Your task to perform on an android device: turn on showing notifications on the lock screen Image 0: 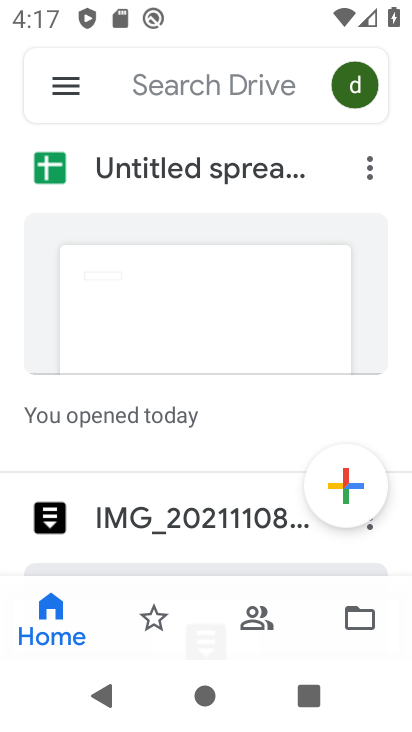
Step 0: press home button
Your task to perform on an android device: turn on showing notifications on the lock screen Image 1: 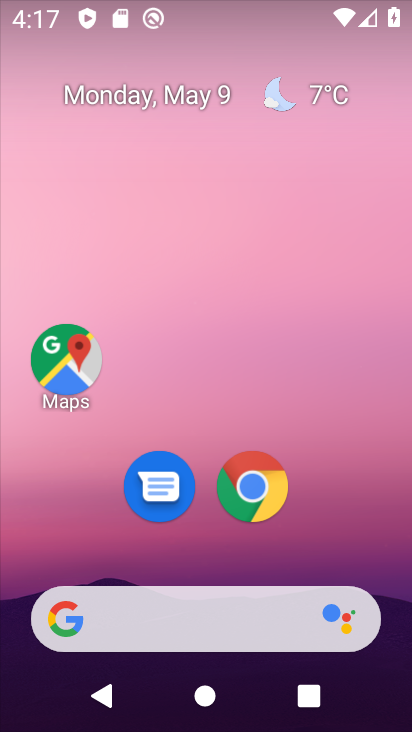
Step 1: drag from (157, 404) to (255, 12)
Your task to perform on an android device: turn on showing notifications on the lock screen Image 2: 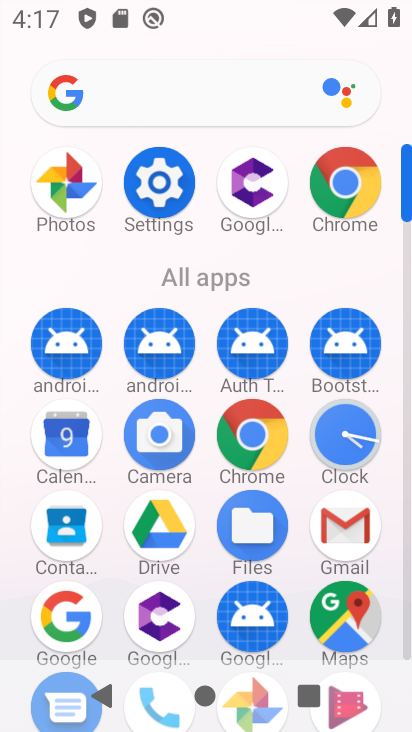
Step 2: click (161, 191)
Your task to perform on an android device: turn on showing notifications on the lock screen Image 3: 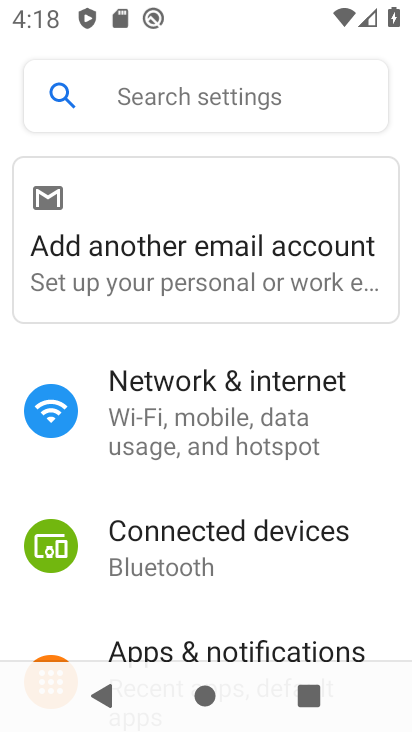
Step 3: drag from (218, 596) to (284, 110)
Your task to perform on an android device: turn on showing notifications on the lock screen Image 4: 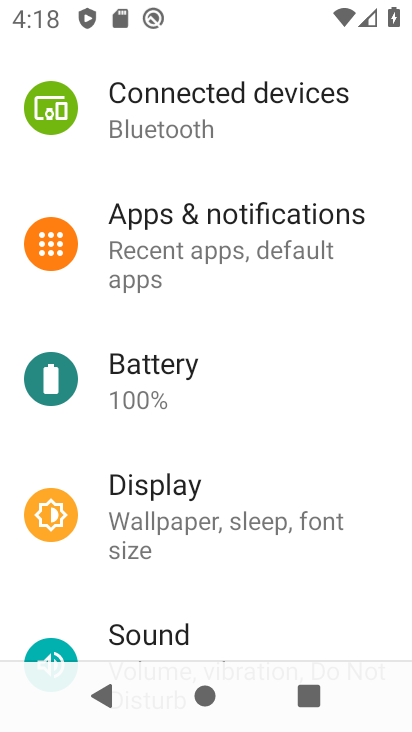
Step 4: click (240, 223)
Your task to perform on an android device: turn on showing notifications on the lock screen Image 5: 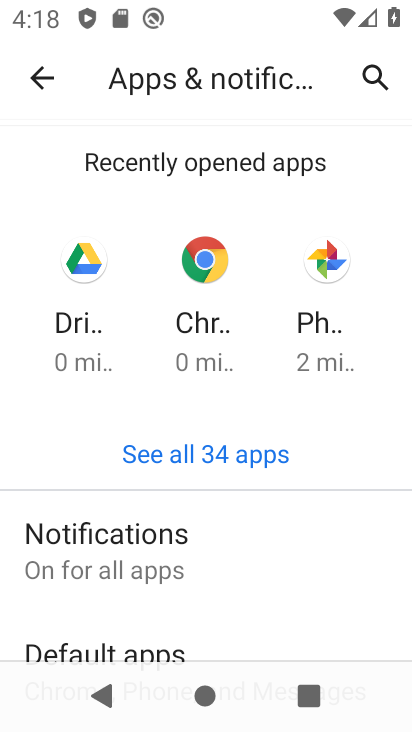
Step 5: click (239, 560)
Your task to perform on an android device: turn on showing notifications on the lock screen Image 6: 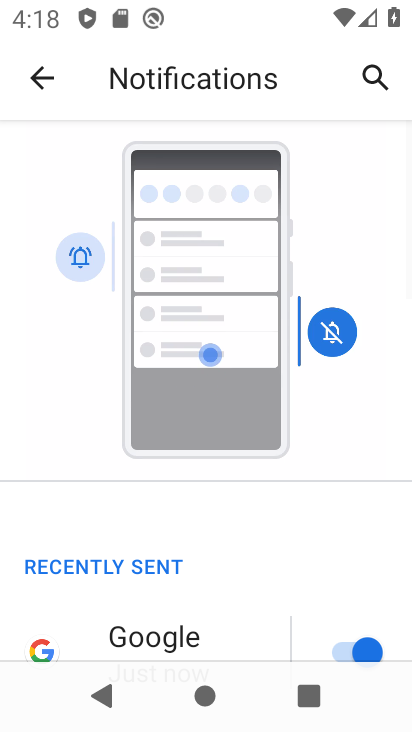
Step 6: drag from (236, 495) to (247, 141)
Your task to perform on an android device: turn on showing notifications on the lock screen Image 7: 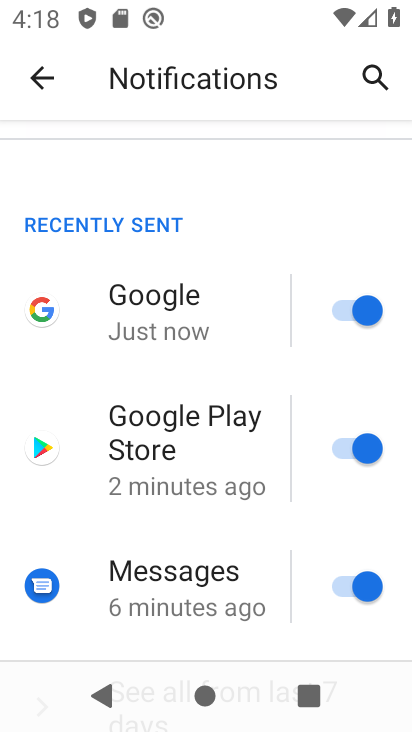
Step 7: drag from (219, 516) to (198, 62)
Your task to perform on an android device: turn on showing notifications on the lock screen Image 8: 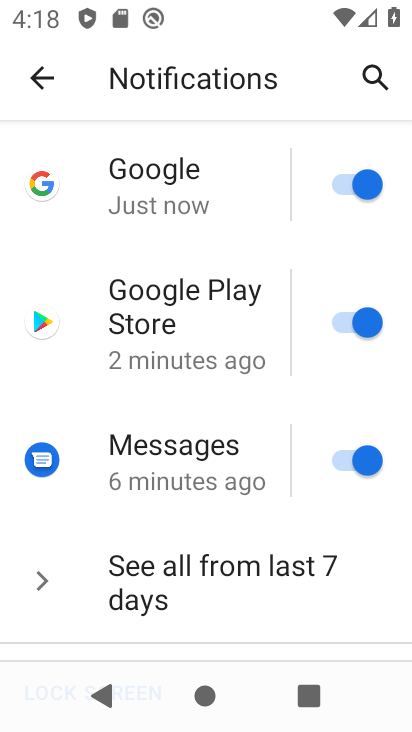
Step 8: drag from (187, 597) to (228, 150)
Your task to perform on an android device: turn on showing notifications on the lock screen Image 9: 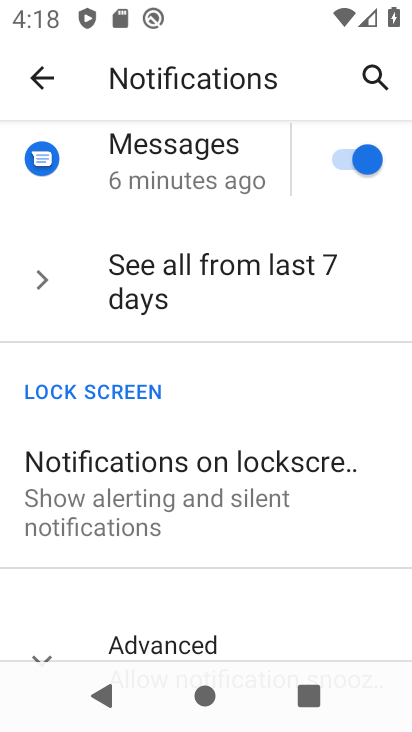
Step 9: click (160, 472)
Your task to perform on an android device: turn on showing notifications on the lock screen Image 10: 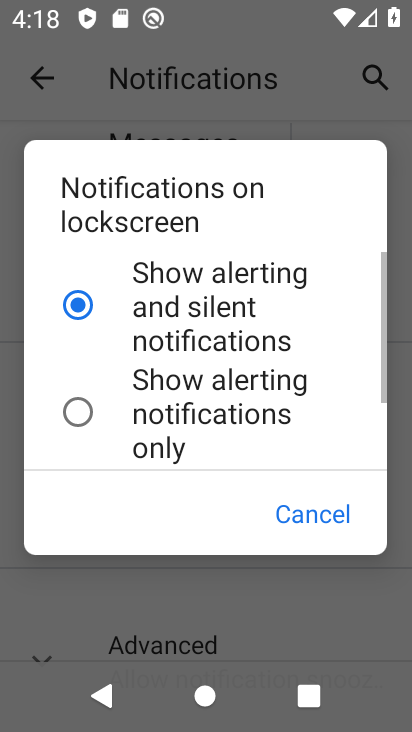
Step 10: task complete